Your task to perform on an android device: turn on the 24-hour format for clock Image 0: 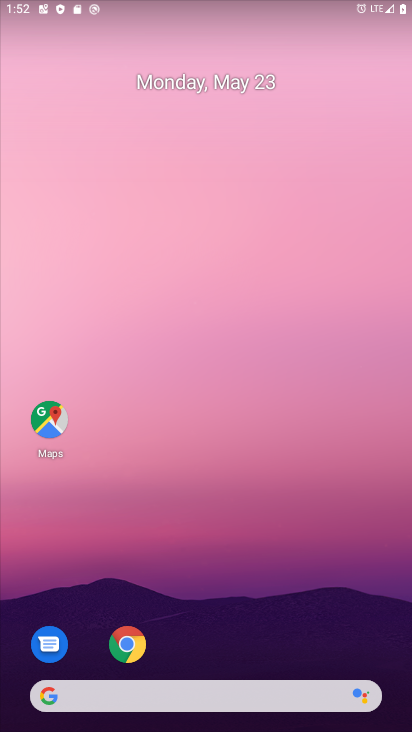
Step 0: drag from (350, 610) to (344, 74)
Your task to perform on an android device: turn on the 24-hour format for clock Image 1: 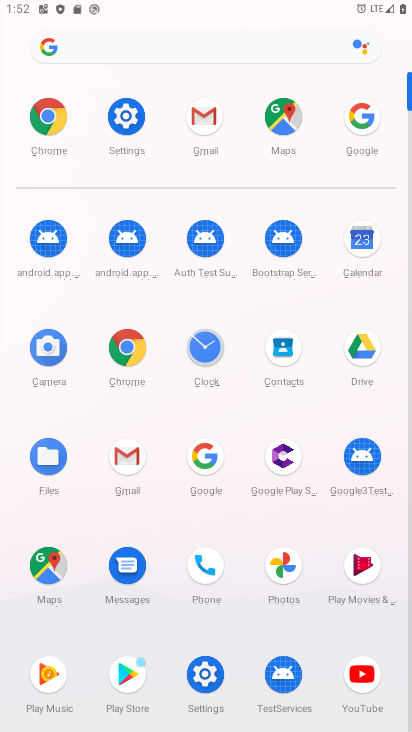
Step 1: click (205, 363)
Your task to perform on an android device: turn on the 24-hour format for clock Image 2: 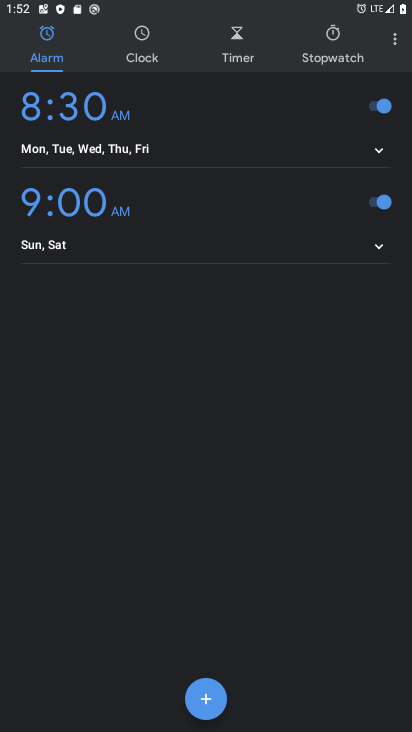
Step 2: click (401, 45)
Your task to perform on an android device: turn on the 24-hour format for clock Image 3: 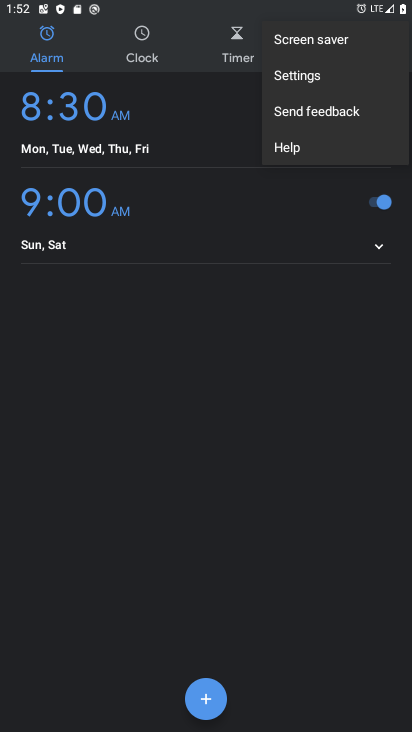
Step 3: click (289, 83)
Your task to perform on an android device: turn on the 24-hour format for clock Image 4: 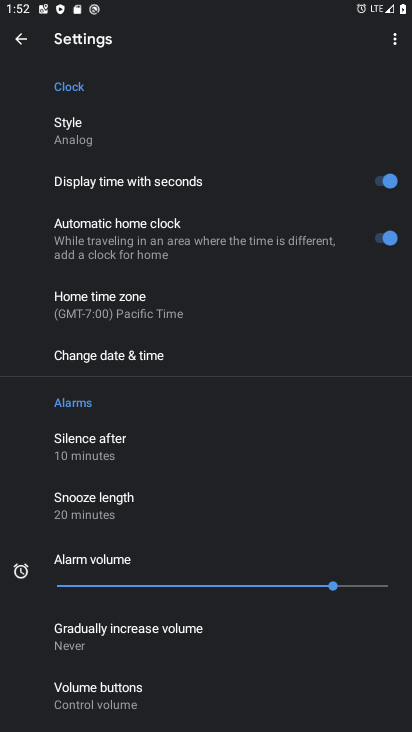
Step 4: click (178, 361)
Your task to perform on an android device: turn on the 24-hour format for clock Image 5: 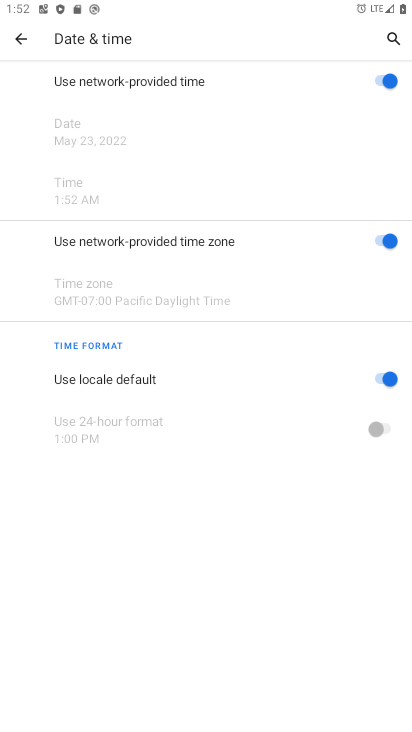
Step 5: task complete